Your task to perform on an android device: View the shopping cart on amazon.com. Add "razer huntsman" to the cart on amazon.com, then select checkout. Image 0: 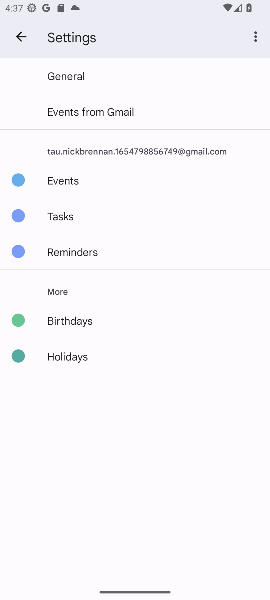
Step 0: press home button
Your task to perform on an android device: View the shopping cart on amazon.com. Add "razer huntsman" to the cart on amazon.com, then select checkout. Image 1: 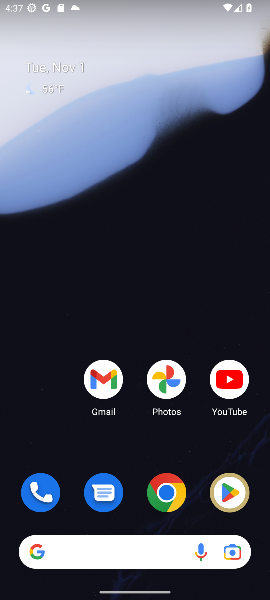
Step 1: drag from (148, 594) to (144, 257)
Your task to perform on an android device: View the shopping cart on amazon.com. Add "razer huntsman" to the cart on amazon.com, then select checkout. Image 2: 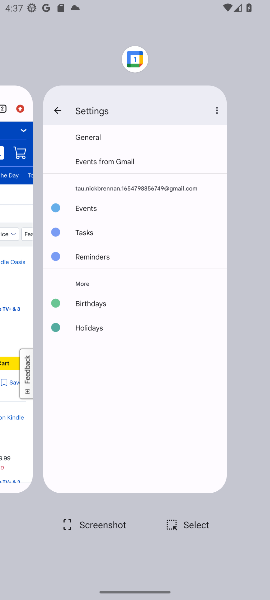
Step 2: drag from (119, 493) to (202, 11)
Your task to perform on an android device: View the shopping cart on amazon.com. Add "razer huntsman" to the cart on amazon.com, then select checkout. Image 3: 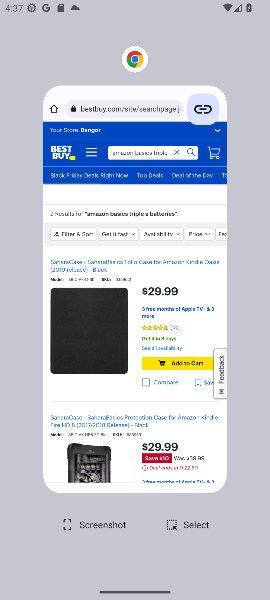
Step 3: drag from (111, 525) to (158, 51)
Your task to perform on an android device: View the shopping cart on amazon.com. Add "razer huntsman" to the cart on amazon.com, then select checkout. Image 4: 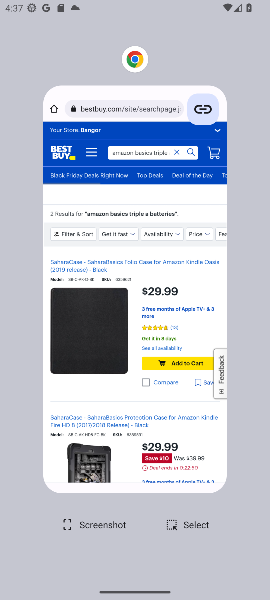
Step 4: drag from (142, 506) to (177, 0)
Your task to perform on an android device: View the shopping cart on amazon.com. Add "razer huntsman" to the cart on amazon.com, then select checkout. Image 5: 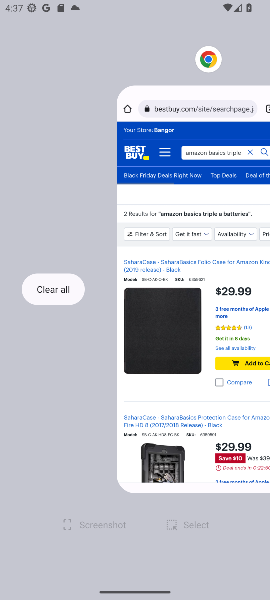
Step 5: drag from (29, 271) to (55, 294)
Your task to perform on an android device: View the shopping cart on amazon.com. Add "razer huntsman" to the cart on amazon.com, then select checkout. Image 6: 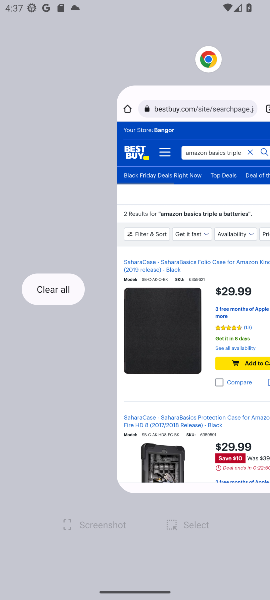
Step 6: click (53, 294)
Your task to perform on an android device: View the shopping cart on amazon.com. Add "razer huntsman" to the cart on amazon.com, then select checkout. Image 7: 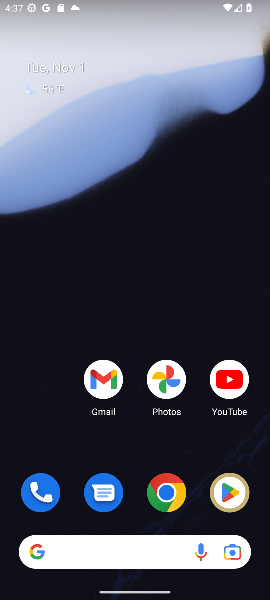
Step 7: drag from (164, 2) to (133, 461)
Your task to perform on an android device: View the shopping cart on amazon.com. Add "razer huntsman" to the cart on amazon.com, then select checkout. Image 8: 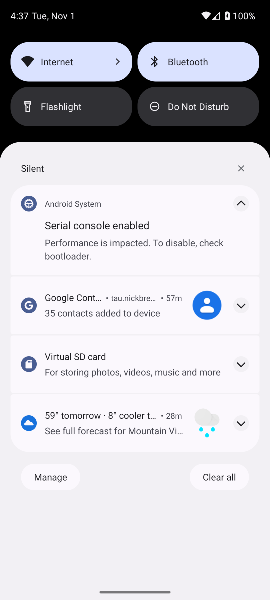
Step 8: click (239, 471)
Your task to perform on an android device: View the shopping cart on amazon.com. Add "razer huntsman" to the cart on amazon.com, then select checkout. Image 9: 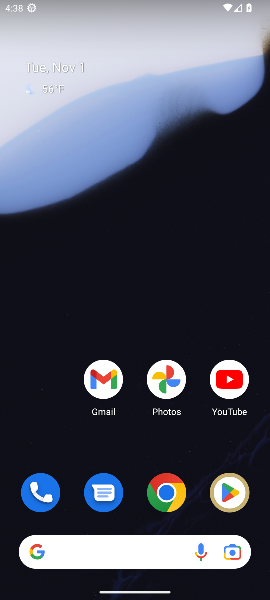
Step 9: click (172, 491)
Your task to perform on an android device: View the shopping cart on amazon.com. Add "razer huntsman" to the cart on amazon.com, then select checkout. Image 10: 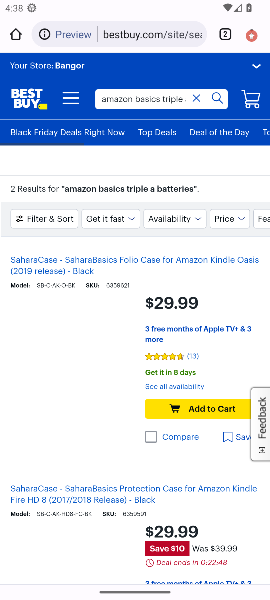
Step 10: click (117, 39)
Your task to perform on an android device: View the shopping cart on amazon.com. Add "razer huntsman" to the cart on amazon.com, then select checkout. Image 11: 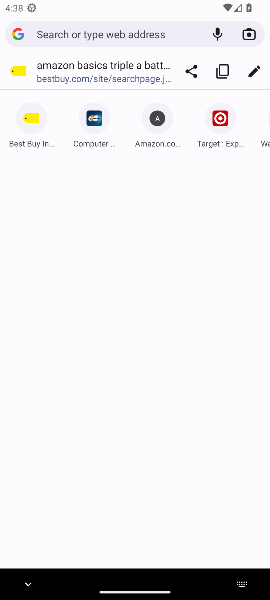
Step 11: click (152, 128)
Your task to perform on an android device: View the shopping cart on amazon.com. Add "razer huntsman" to the cart on amazon.com, then select checkout. Image 12: 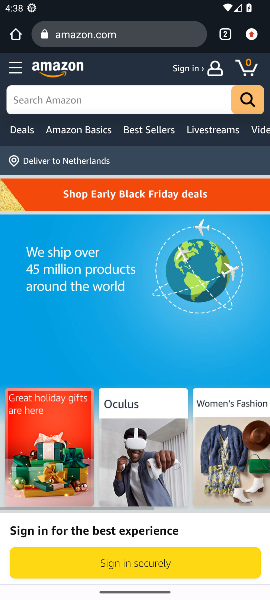
Step 12: click (245, 64)
Your task to perform on an android device: View the shopping cart on amazon.com. Add "razer huntsman" to the cart on amazon.com, then select checkout. Image 13: 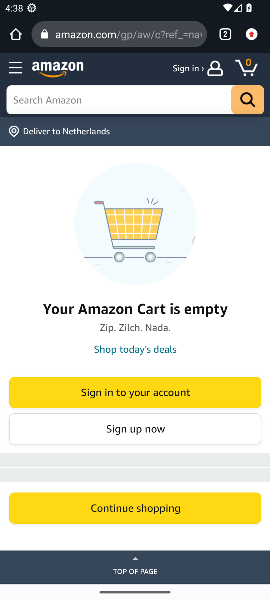
Step 13: click (128, 92)
Your task to perform on an android device: View the shopping cart on amazon.com. Add "razer huntsman" to the cart on amazon.com, then select checkout. Image 14: 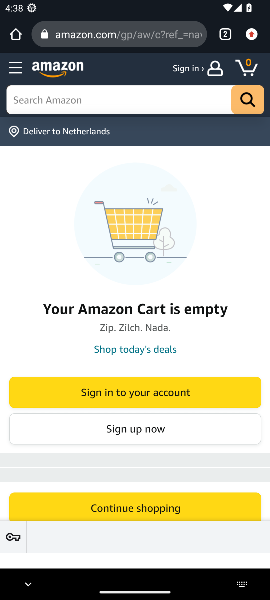
Step 14: type "razer huntsman"
Your task to perform on an android device: View the shopping cart on amazon.com. Add "razer huntsman" to the cart on amazon.com, then select checkout. Image 15: 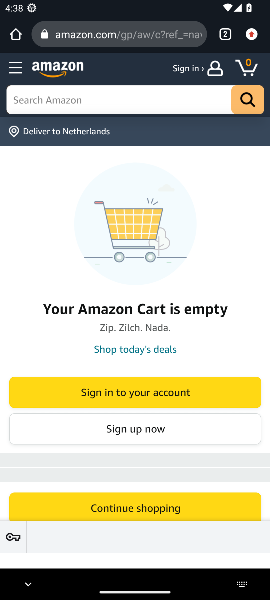
Step 15: type ""
Your task to perform on an android device: View the shopping cart on amazon.com. Add "razer huntsman" to the cart on amazon.com, then select checkout. Image 16: 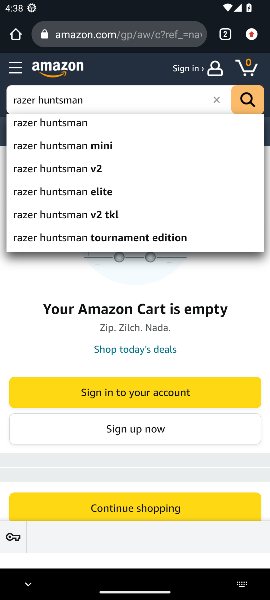
Step 16: press enter
Your task to perform on an android device: View the shopping cart on amazon.com. Add "razer huntsman" to the cart on amazon.com, then select checkout. Image 17: 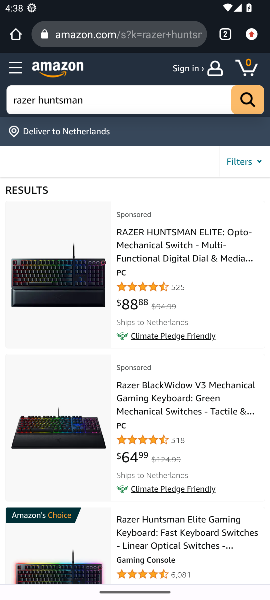
Step 17: click (183, 245)
Your task to perform on an android device: View the shopping cart on amazon.com. Add "razer huntsman" to the cart on amazon.com, then select checkout. Image 18: 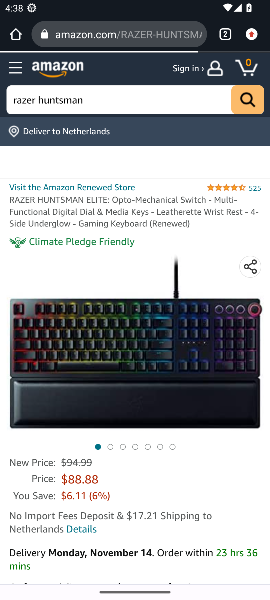
Step 18: drag from (137, 507) to (167, 205)
Your task to perform on an android device: View the shopping cart on amazon.com. Add "razer huntsman" to the cart on amazon.com, then select checkout. Image 19: 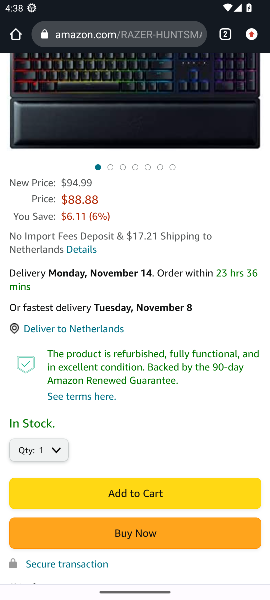
Step 19: click (156, 489)
Your task to perform on an android device: View the shopping cart on amazon.com. Add "razer huntsman" to the cart on amazon.com, then select checkout. Image 20: 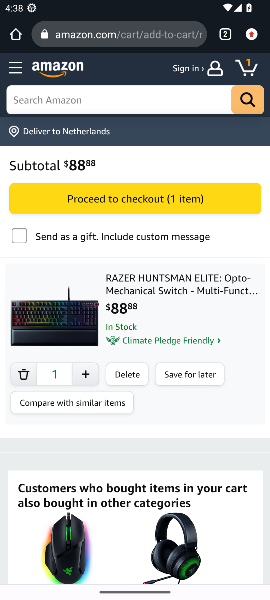
Step 20: click (243, 72)
Your task to perform on an android device: View the shopping cart on amazon.com. Add "razer huntsman" to the cart on amazon.com, then select checkout. Image 21: 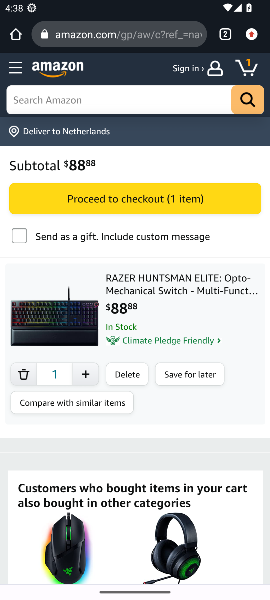
Step 21: click (243, 65)
Your task to perform on an android device: View the shopping cart on amazon.com. Add "razer huntsman" to the cart on amazon.com, then select checkout. Image 22: 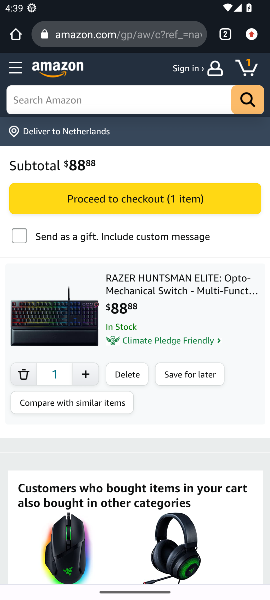
Step 22: click (173, 182)
Your task to perform on an android device: View the shopping cart on amazon.com. Add "razer huntsman" to the cart on amazon.com, then select checkout. Image 23: 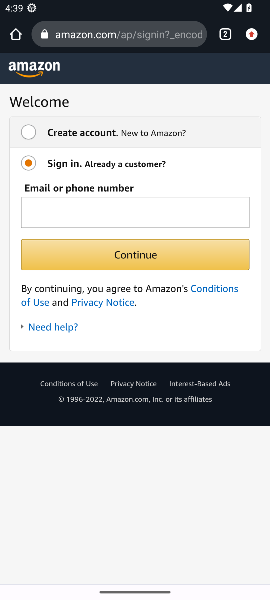
Step 23: task complete